Your task to perform on an android device: install app "Google Calendar" Image 0: 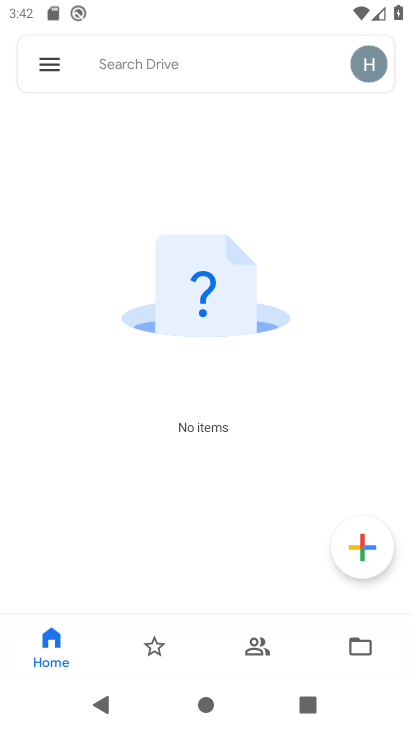
Step 0: press home button
Your task to perform on an android device: install app "Google Calendar" Image 1: 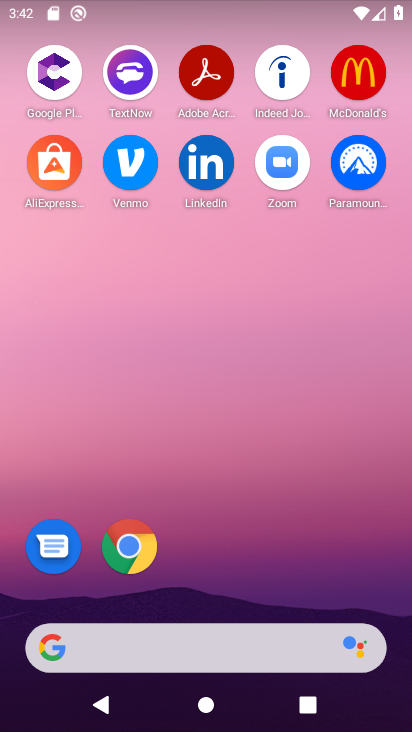
Step 1: drag from (381, 591) to (336, 155)
Your task to perform on an android device: install app "Google Calendar" Image 2: 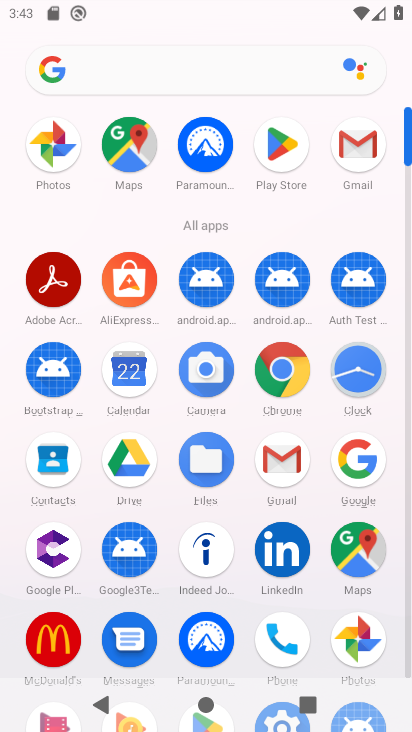
Step 2: drag from (323, 660) to (319, 411)
Your task to perform on an android device: install app "Google Calendar" Image 3: 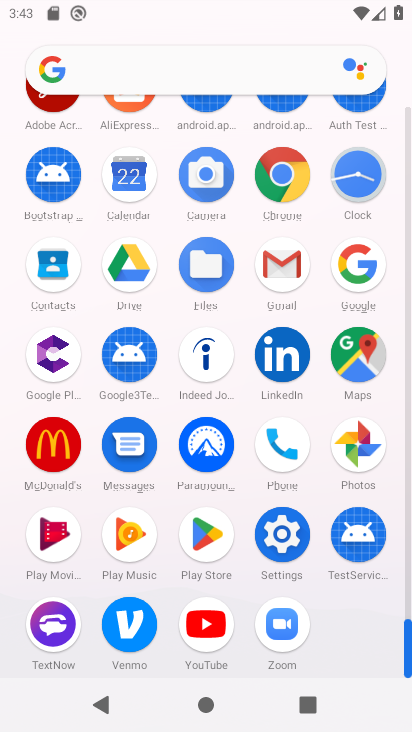
Step 3: click (207, 533)
Your task to perform on an android device: install app "Google Calendar" Image 4: 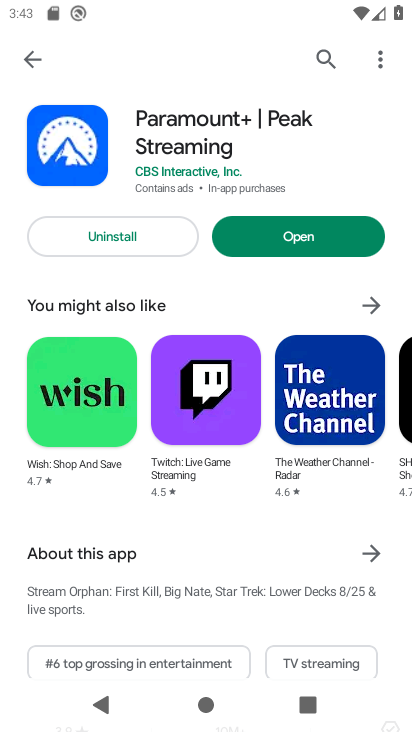
Step 4: click (318, 53)
Your task to perform on an android device: install app "Google Calendar" Image 5: 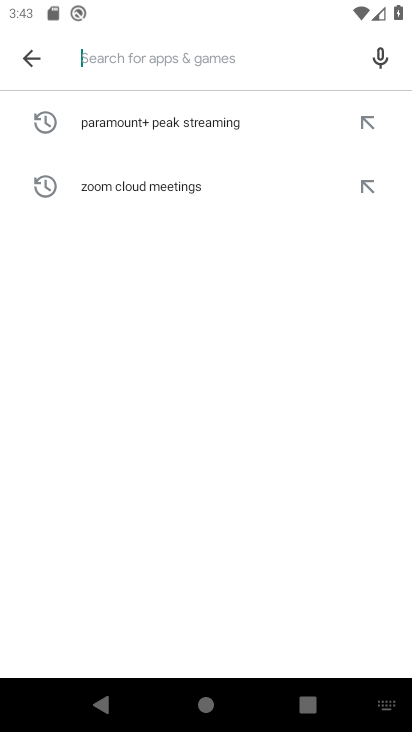
Step 5: type "Google Calendar"
Your task to perform on an android device: install app "Google Calendar" Image 6: 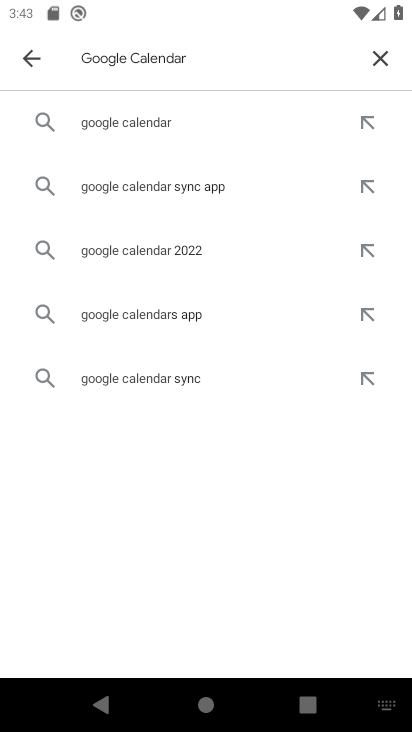
Step 6: click (105, 118)
Your task to perform on an android device: install app "Google Calendar" Image 7: 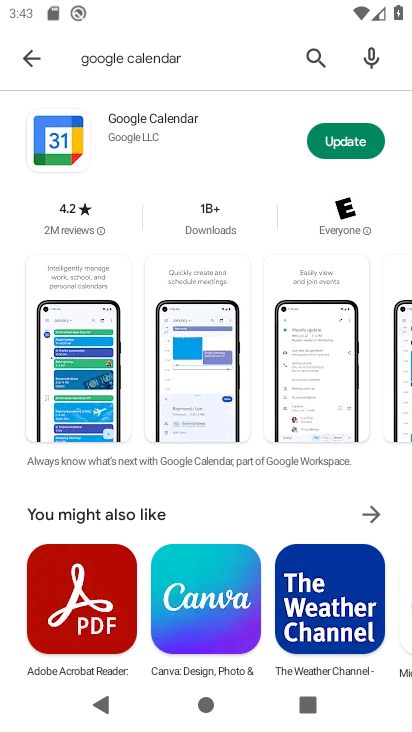
Step 7: click (124, 116)
Your task to perform on an android device: install app "Google Calendar" Image 8: 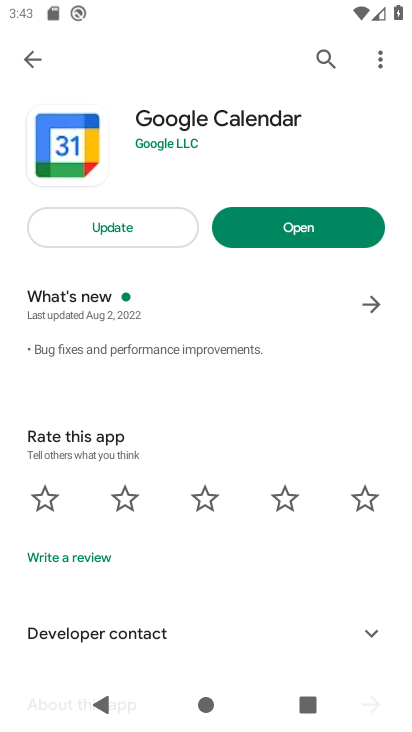
Step 8: task complete